Your task to perform on an android device: Go to eBay Image 0: 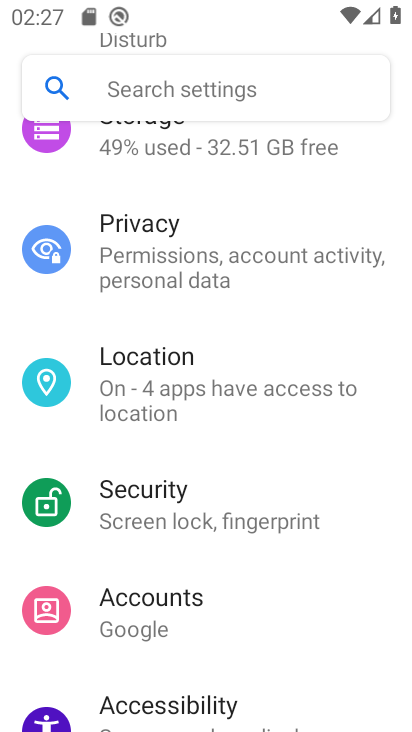
Step 0: press home button
Your task to perform on an android device: Go to eBay Image 1: 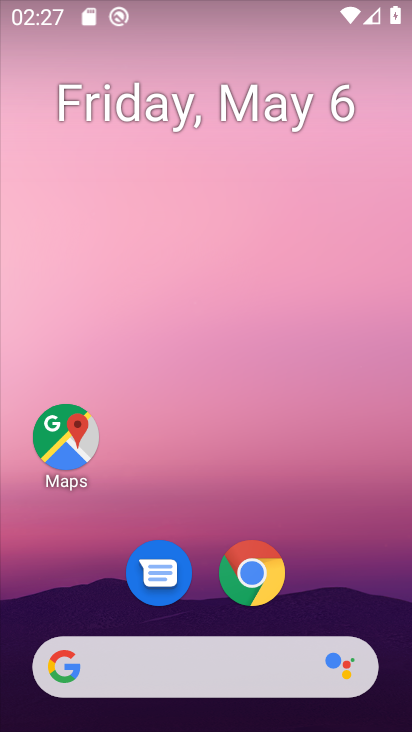
Step 1: drag from (328, 520) to (333, 231)
Your task to perform on an android device: Go to eBay Image 2: 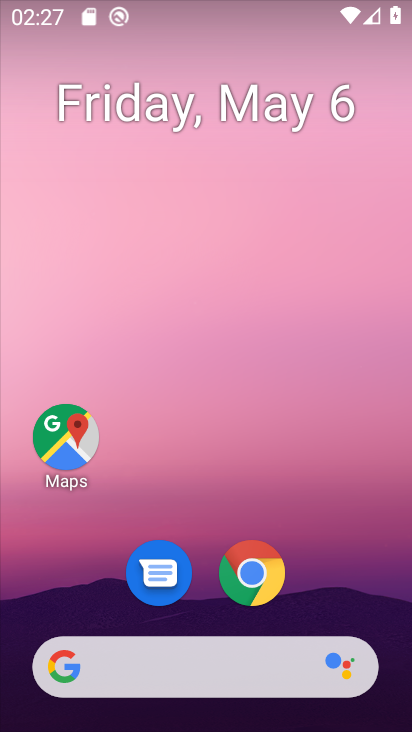
Step 2: drag from (328, 597) to (292, 180)
Your task to perform on an android device: Go to eBay Image 3: 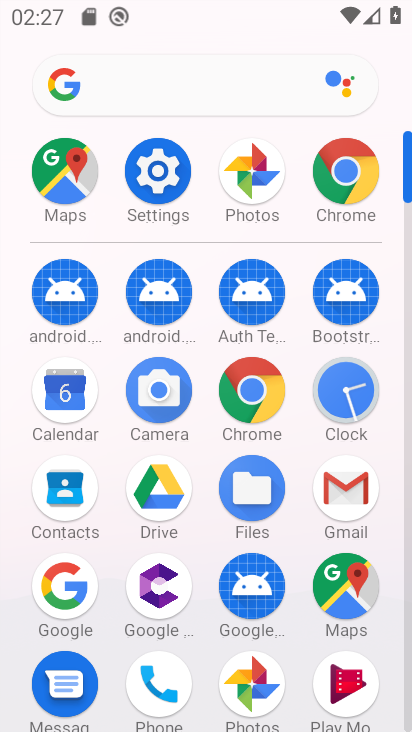
Step 3: click (245, 378)
Your task to perform on an android device: Go to eBay Image 4: 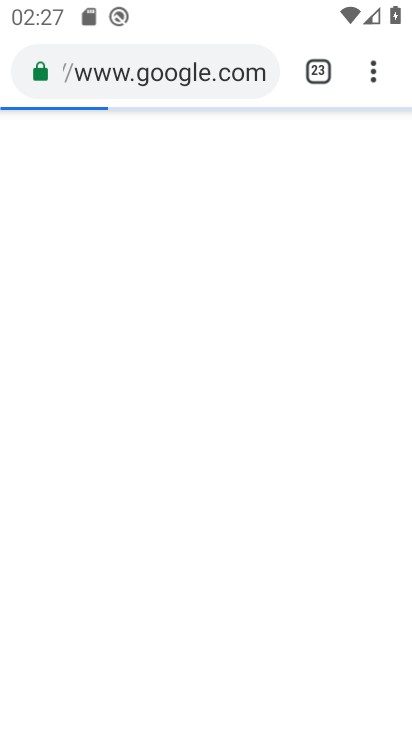
Step 4: click (353, 77)
Your task to perform on an android device: Go to eBay Image 5: 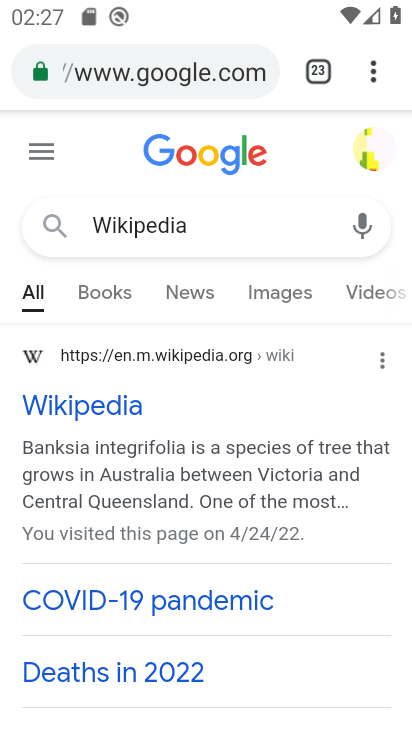
Step 5: click (346, 63)
Your task to perform on an android device: Go to eBay Image 6: 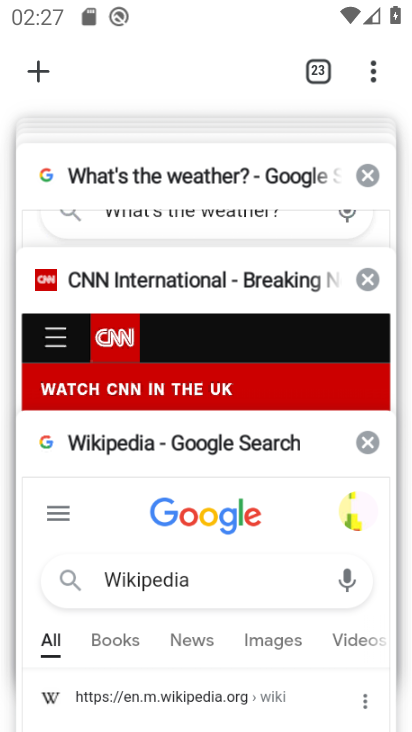
Step 6: click (22, 69)
Your task to perform on an android device: Go to eBay Image 7: 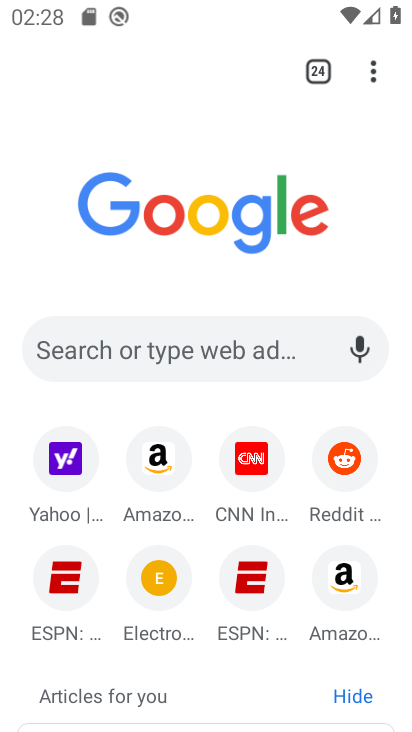
Step 7: click (263, 332)
Your task to perform on an android device: Go to eBay Image 8: 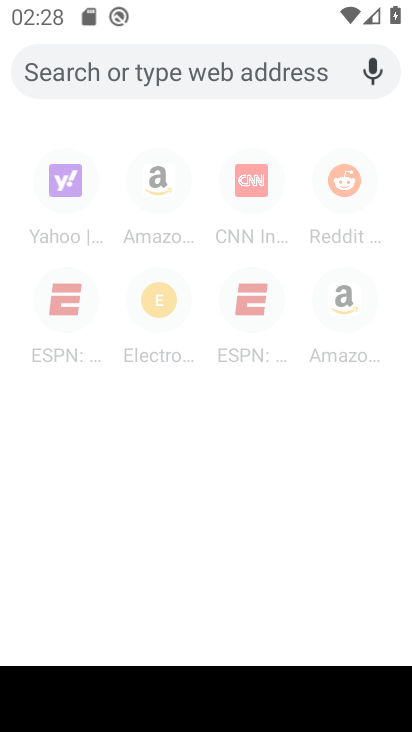
Step 8: click (248, 64)
Your task to perform on an android device: Go to eBay Image 9: 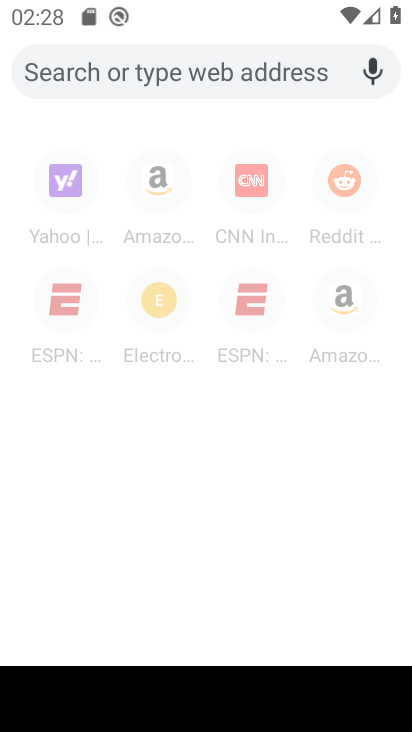
Step 9: type " eBay"
Your task to perform on an android device: Go to eBay Image 10: 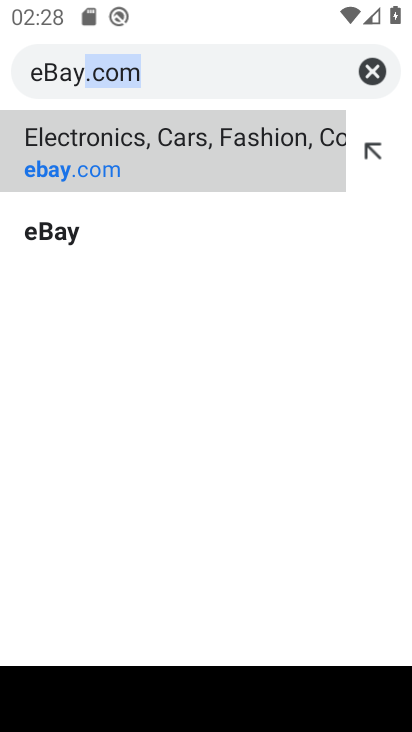
Step 10: click (64, 237)
Your task to perform on an android device: Go to eBay Image 11: 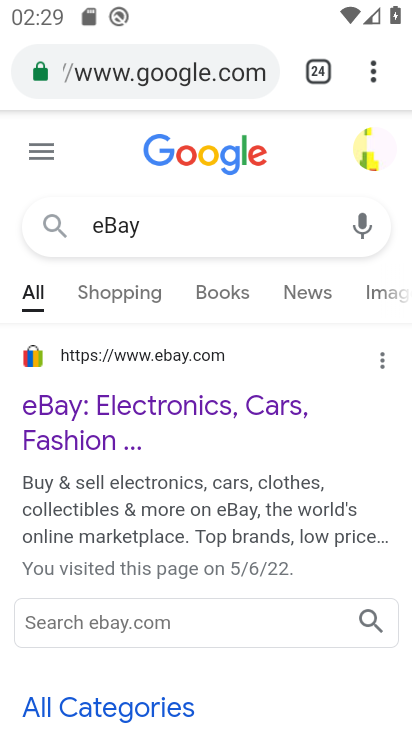
Step 11: task complete